Your task to perform on an android device: Search for "usb-c" on costco.com, select the first entry, add it to the cart, then select checkout. Image 0: 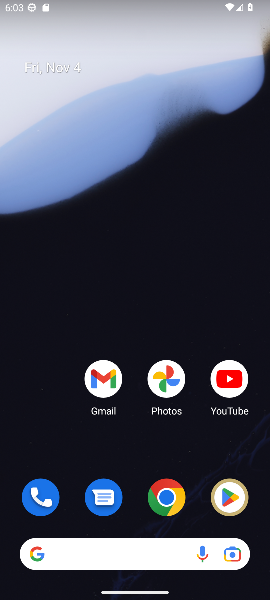
Step 0: click (167, 501)
Your task to perform on an android device: Search for "usb-c" on costco.com, select the first entry, add it to the cart, then select checkout. Image 1: 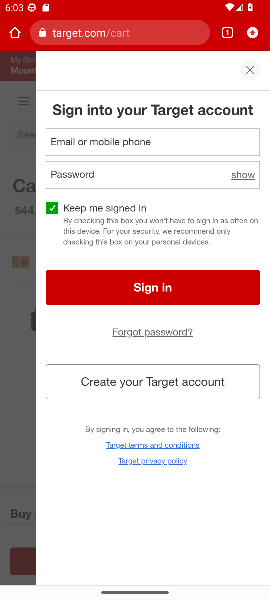
Step 1: click (103, 34)
Your task to perform on an android device: Search for "usb-c" on costco.com, select the first entry, add it to the cart, then select checkout. Image 2: 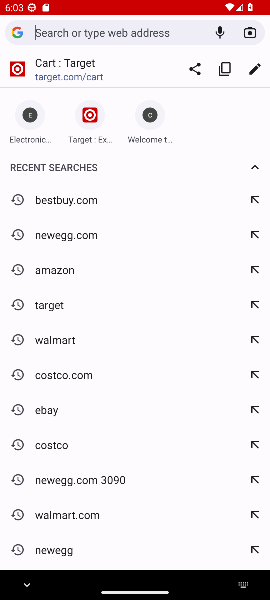
Step 2: click (55, 380)
Your task to perform on an android device: Search for "usb-c" on costco.com, select the first entry, add it to the cart, then select checkout. Image 3: 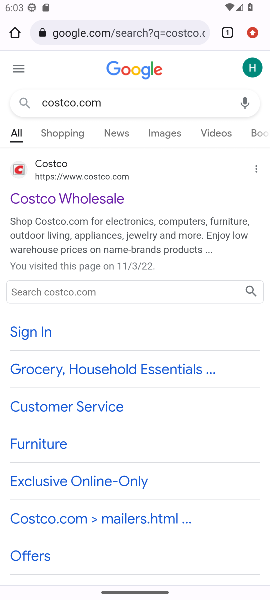
Step 3: click (51, 196)
Your task to perform on an android device: Search for "usb-c" on costco.com, select the first entry, add it to the cart, then select checkout. Image 4: 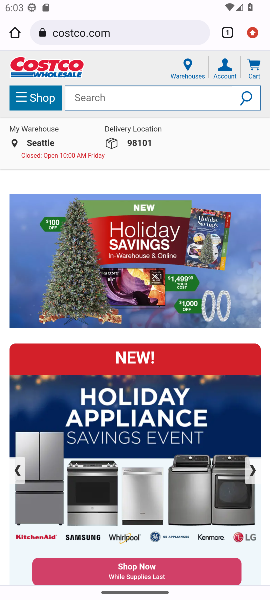
Step 4: click (128, 102)
Your task to perform on an android device: Search for "usb-c" on costco.com, select the first entry, add it to the cart, then select checkout. Image 5: 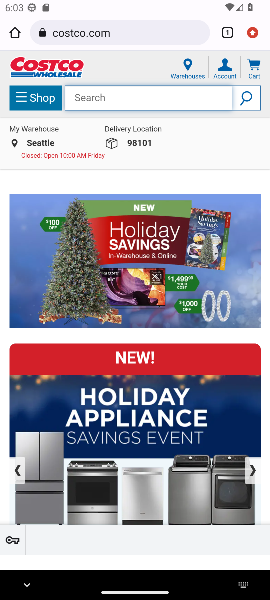
Step 5: type "usb-c"
Your task to perform on an android device: Search for "usb-c" on costco.com, select the first entry, add it to the cart, then select checkout. Image 6: 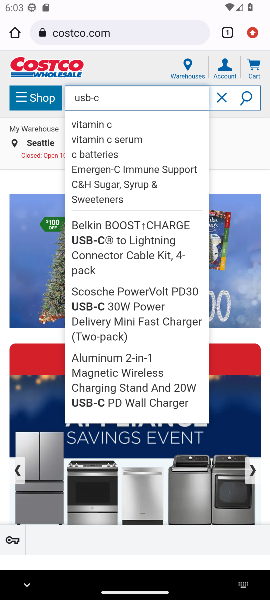
Step 6: click (247, 95)
Your task to perform on an android device: Search for "usb-c" on costco.com, select the first entry, add it to the cart, then select checkout. Image 7: 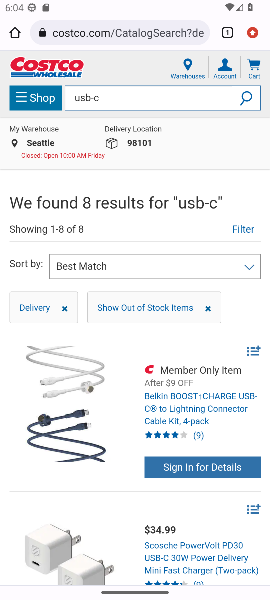
Step 7: drag from (81, 420) to (96, 311)
Your task to perform on an android device: Search for "usb-c" on costco.com, select the first entry, add it to the cart, then select checkout. Image 8: 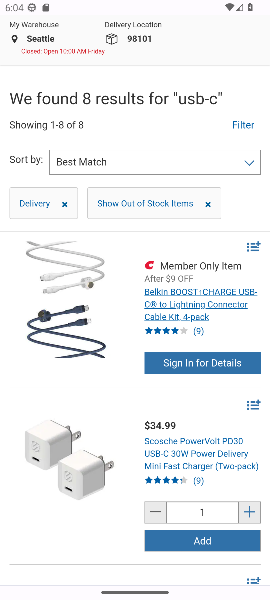
Step 8: click (81, 311)
Your task to perform on an android device: Search for "usb-c" on costco.com, select the first entry, add it to the cart, then select checkout. Image 9: 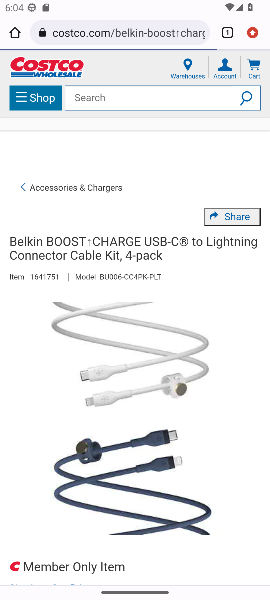
Step 9: task complete